Your task to perform on an android device: turn off priority inbox in the gmail app Image 0: 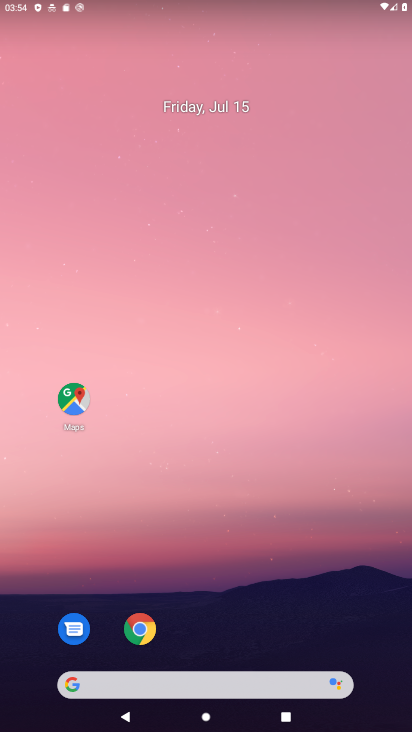
Step 0: drag from (281, 592) to (322, 105)
Your task to perform on an android device: turn off priority inbox in the gmail app Image 1: 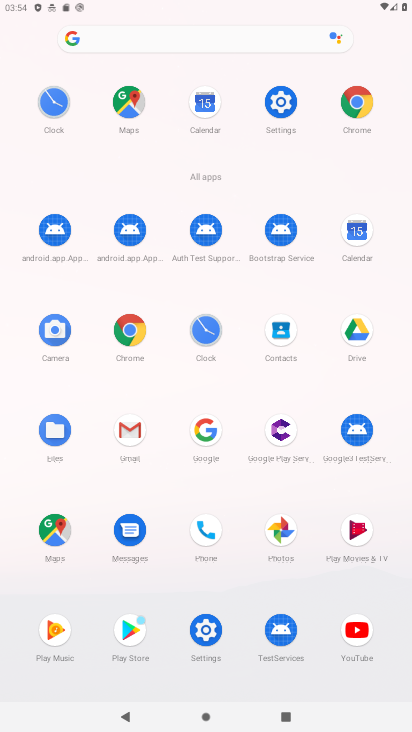
Step 1: click (118, 424)
Your task to perform on an android device: turn off priority inbox in the gmail app Image 2: 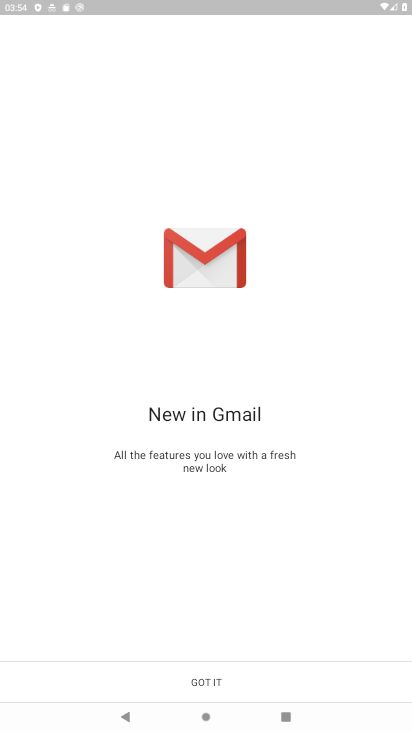
Step 2: click (200, 678)
Your task to perform on an android device: turn off priority inbox in the gmail app Image 3: 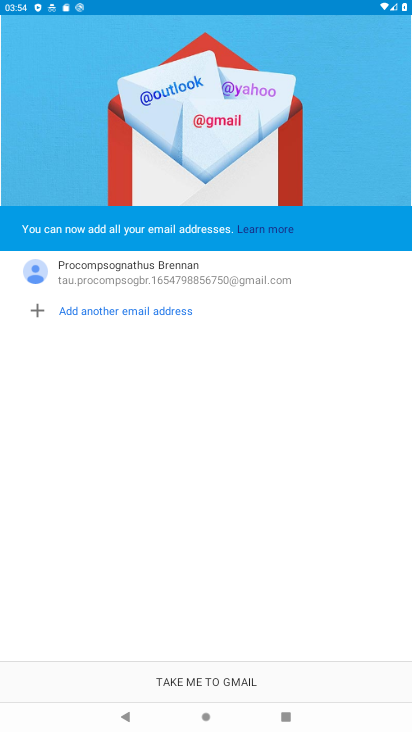
Step 3: click (200, 678)
Your task to perform on an android device: turn off priority inbox in the gmail app Image 4: 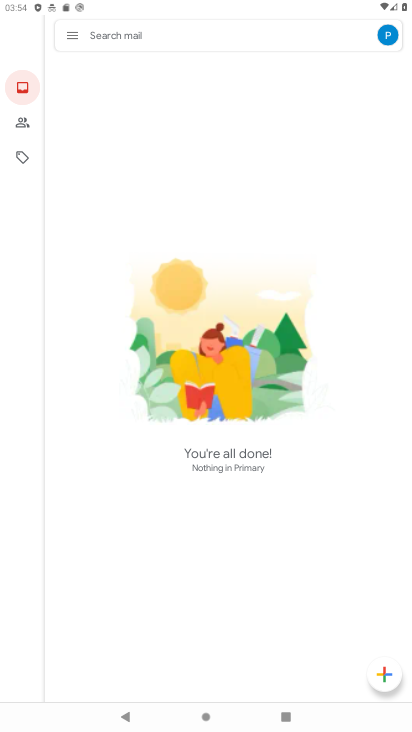
Step 4: click (81, 28)
Your task to perform on an android device: turn off priority inbox in the gmail app Image 5: 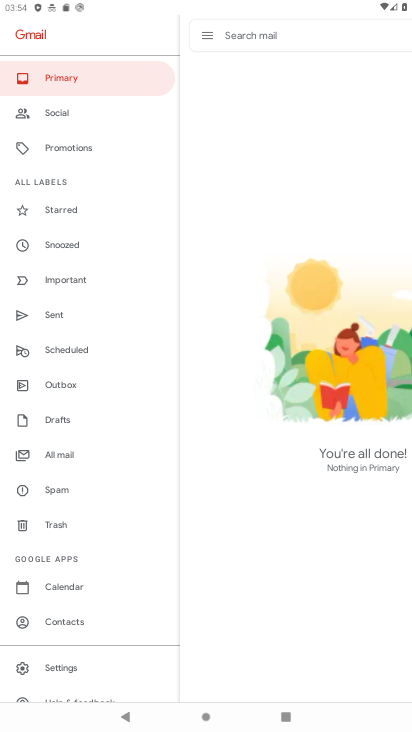
Step 5: click (58, 668)
Your task to perform on an android device: turn off priority inbox in the gmail app Image 6: 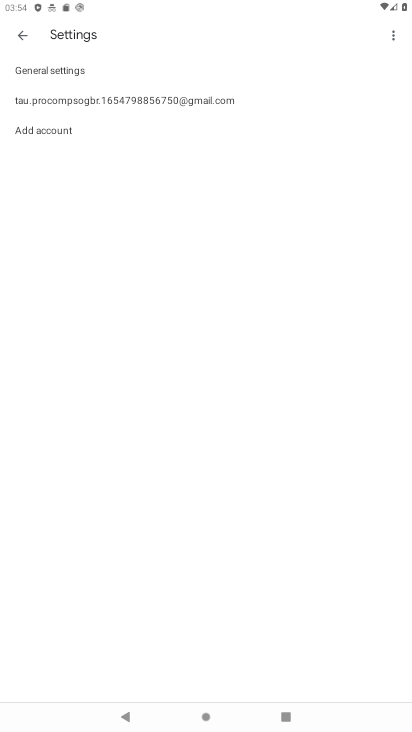
Step 6: click (62, 104)
Your task to perform on an android device: turn off priority inbox in the gmail app Image 7: 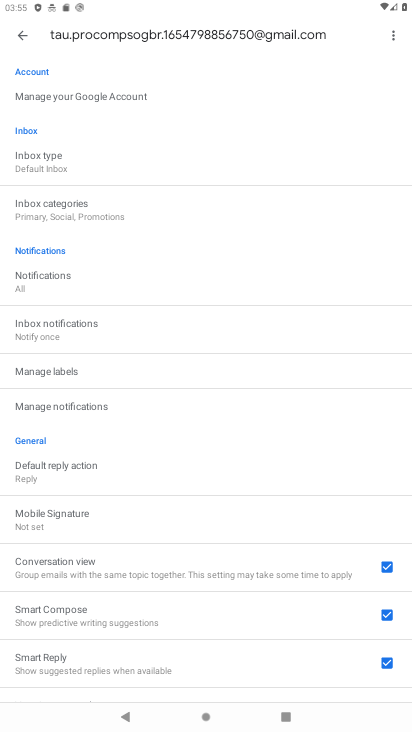
Step 7: click (36, 175)
Your task to perform on an android device: turn off priority inbox in the gmail app Image 8: 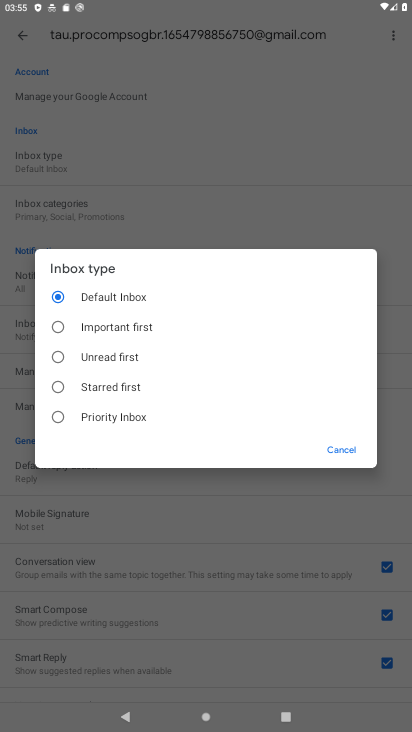
Step 8: click (94, 409)
Your task to perform on an android device: turn off priority inbox in the gmail app Image 9: 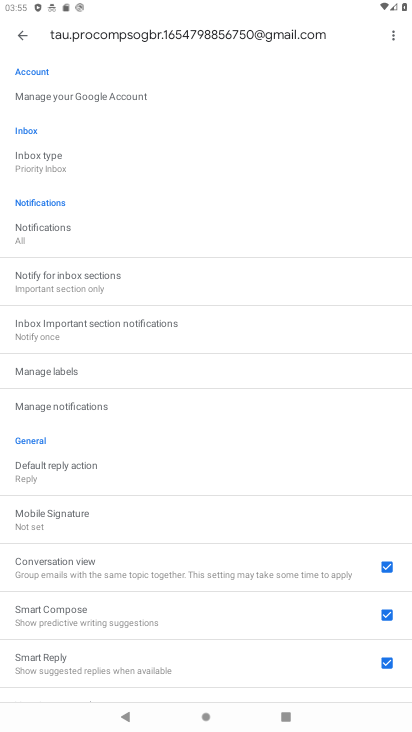
Step 9: click (34, 146)
Your task to perform on an android device: turn off priority inbox in the gmail app Image 10: 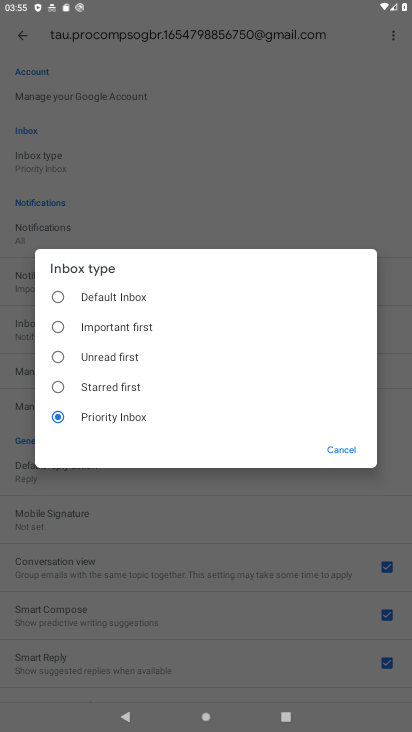
Step 10: click (117, 302)
Your task to perform on an android device: turn off priority inbox in the gmail app Image 11: 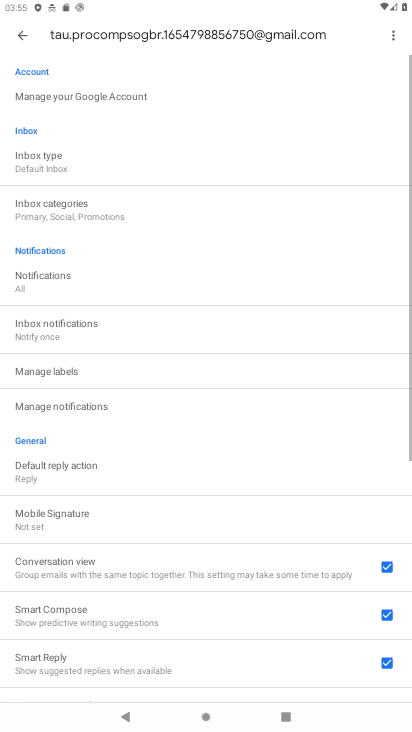
Step 11: task complete